Your task to perform on an android device: set an alarm Image 0: 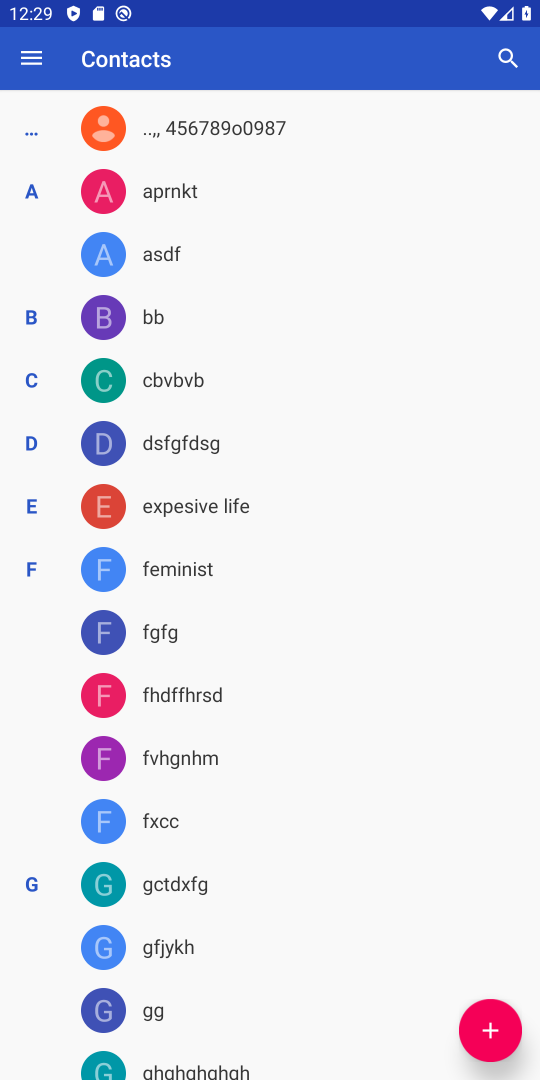
Step 0: press home button
Your task to perform on an android device: set an alarm Image 1: 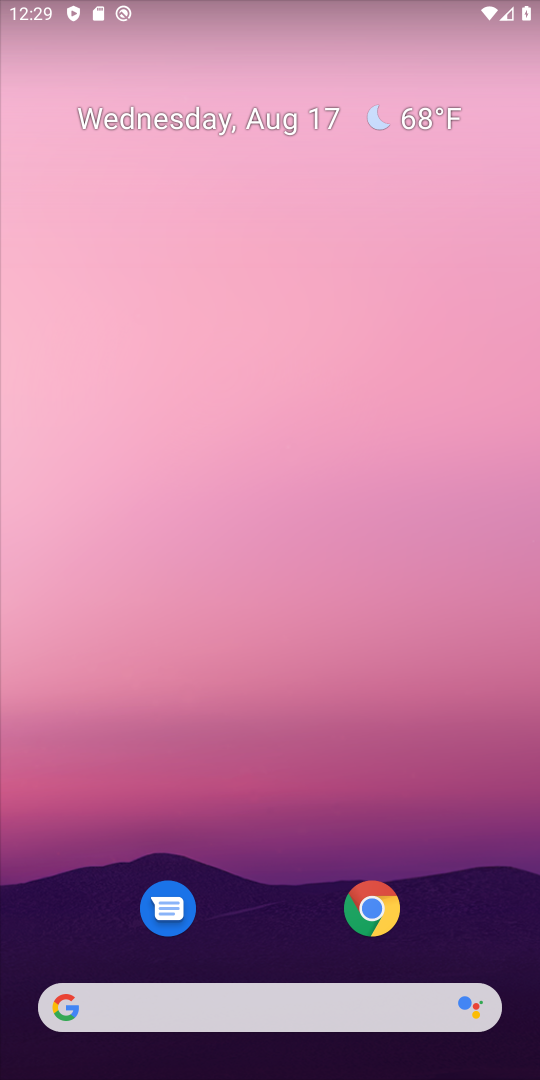
Step 1: drag from (260, 902) to (297, 239)
Your task to perform on an android device: set an alarm Image 2: 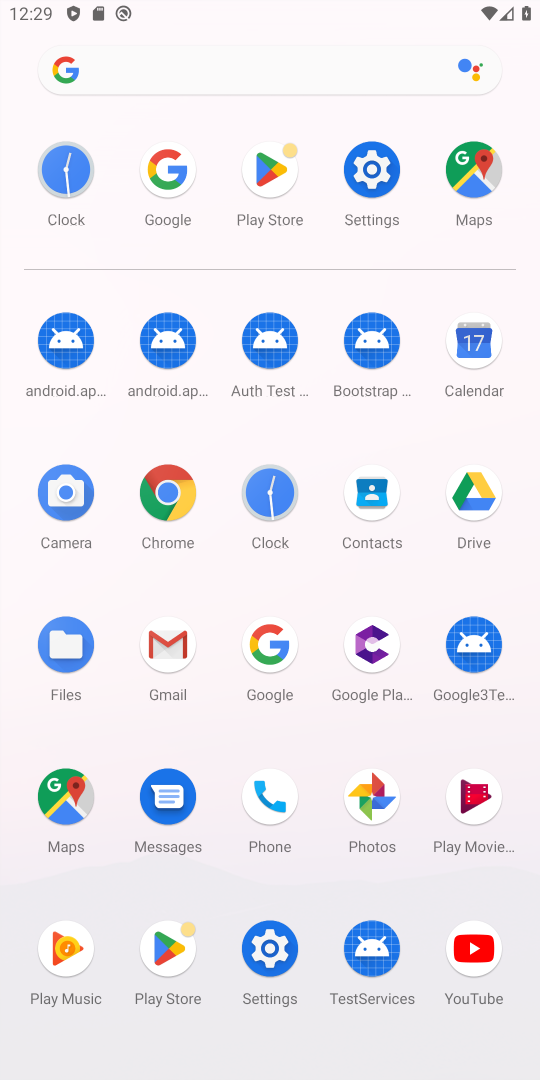
Step 2: click (89, 170)
Your task to perform on an android device: set an alarm Image 3: 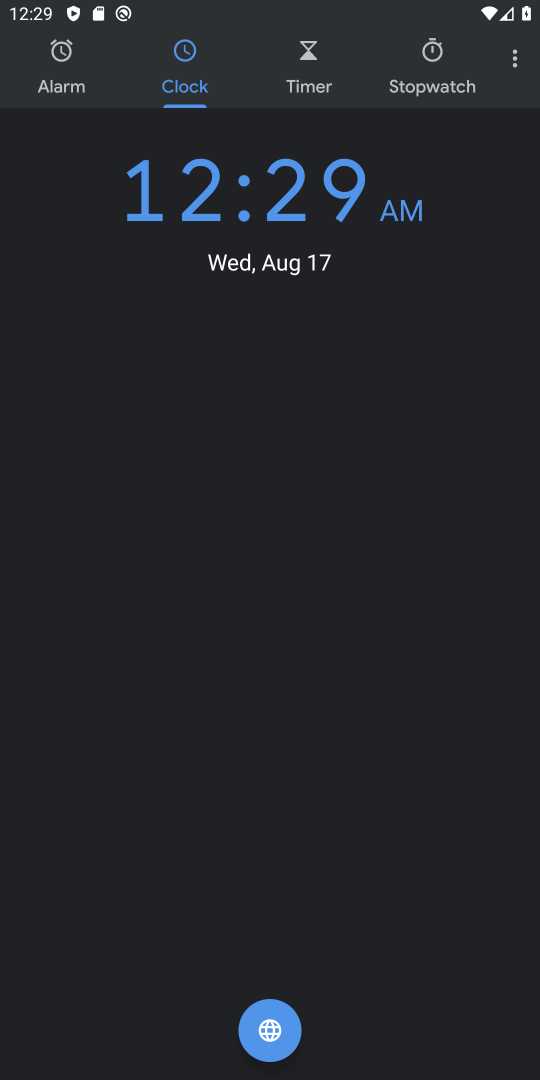
Step 3: click (64, 64)
Your task to perform on an android device: set an alarm Image 4: 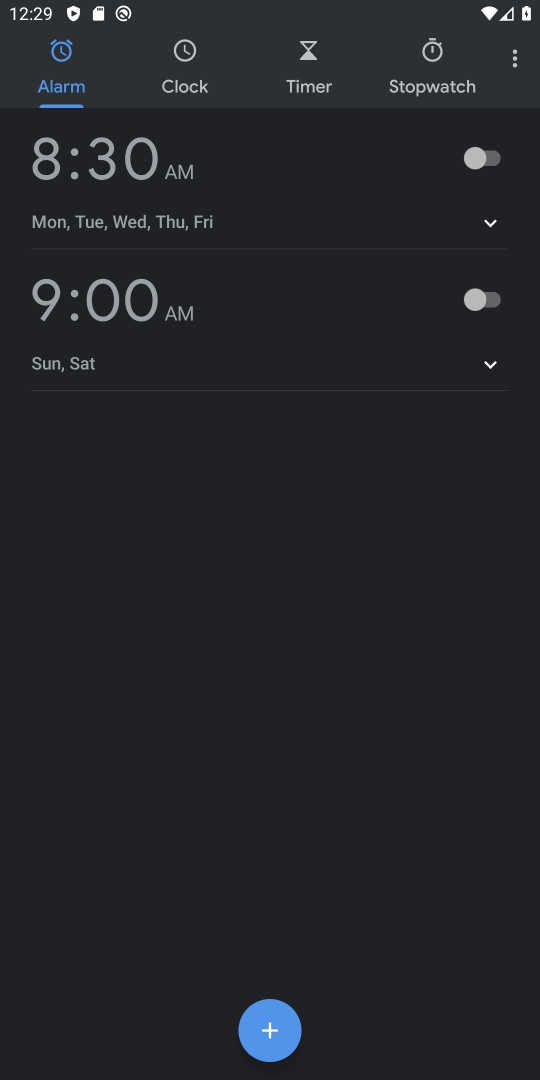
Step 4: click (489, 147)
Your task to perform on an android device: set an alarm Image 5: 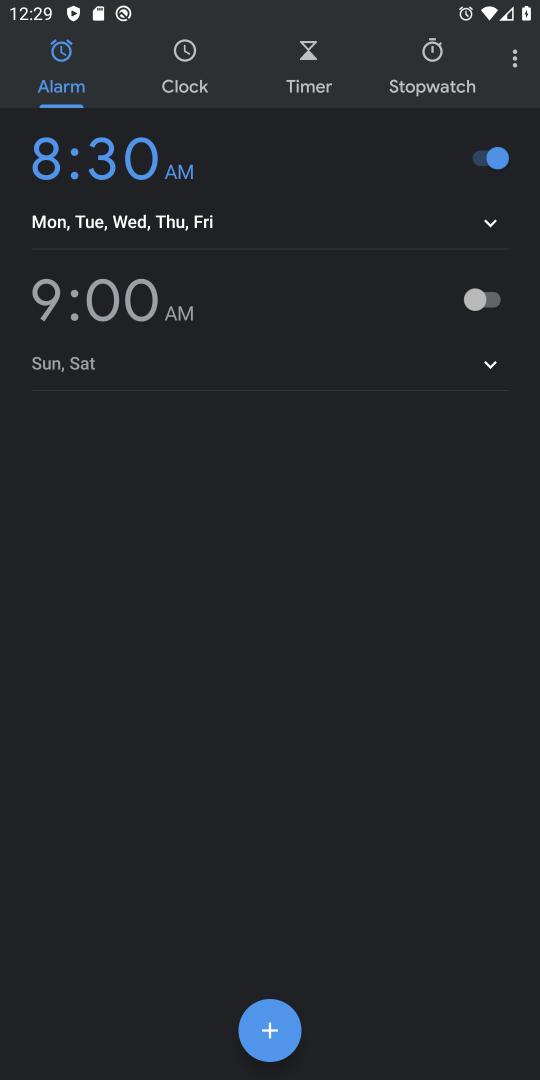
Step 5: task complete